Your task to perform on an android device: Open display settings Image 0: 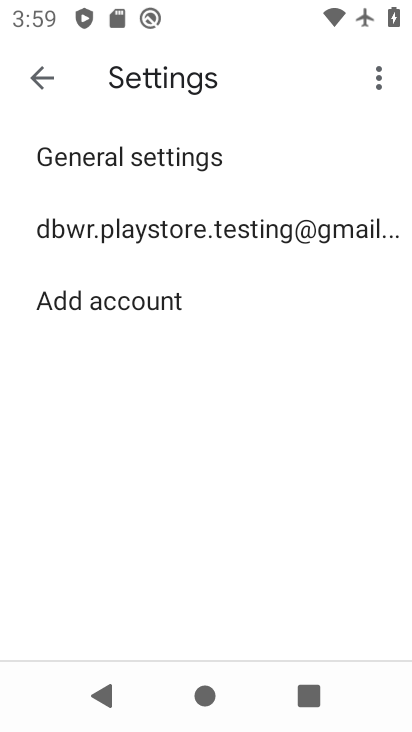
Step 0: press home button
Your task to perform on an android device: Open display settings Image 1: 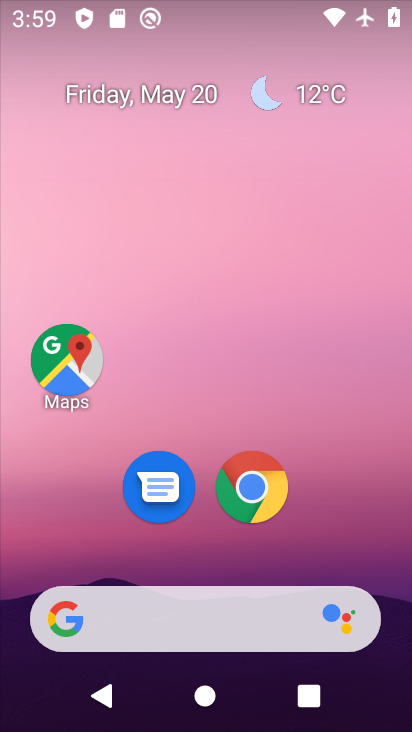
Step 1: drag from (291, 532) to (266, 90)
Your task to perform on an android device: Open display settings Image 2: 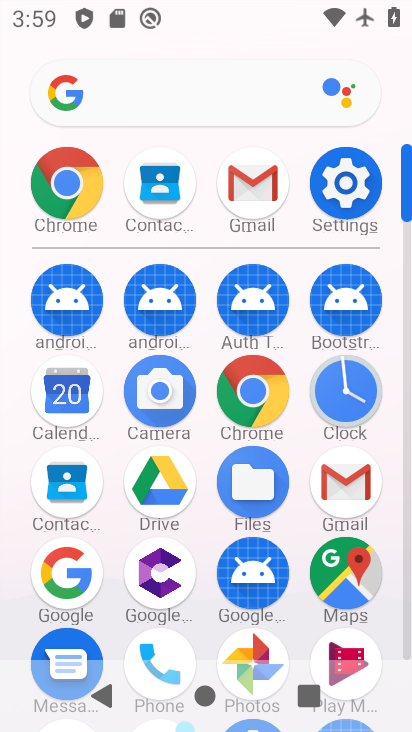
Step 2: click (334, 187)
Your task to perform on an android device: Open display settings Image 3: 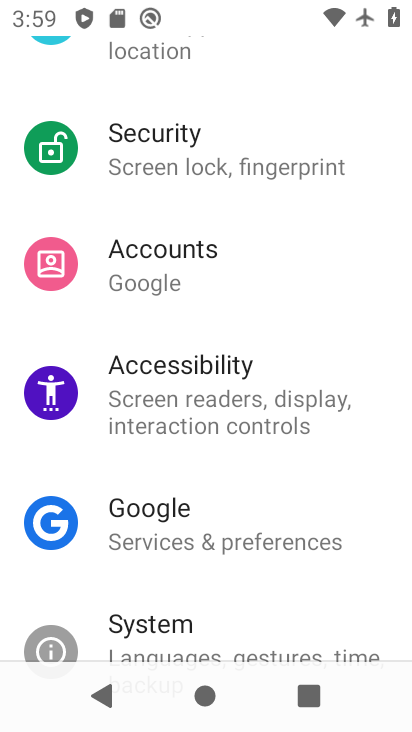
Step 3: drag from (155, 525) to (145, 625)
Your task to perform on an android device: Open display settings Image 4: 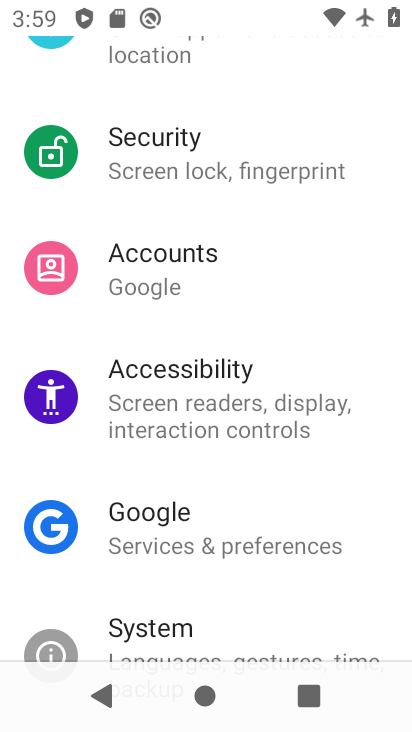
Step 4: drag from (184, 200) to (111, 553)
Your task to perform on an android device: Open display settings Image 5: 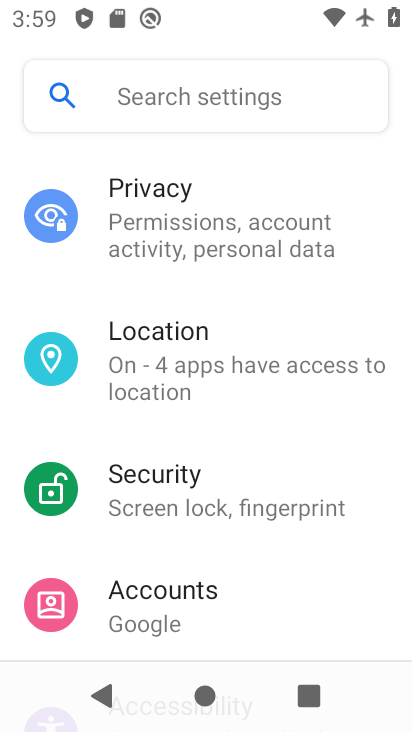
Step 5: drag from (173, 527) to (182, 279)
Your task to perform on an android device: Open display settings Image 6: 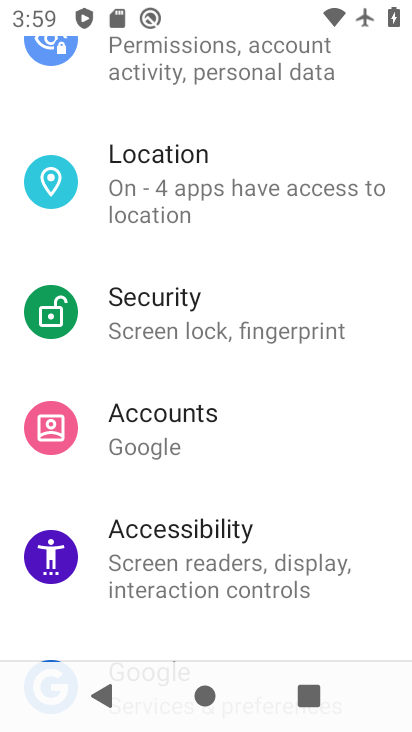
Step 6: drag from (185, 573) to (213, 289)
Your task to perform on an android device: Open display settings Image 7: 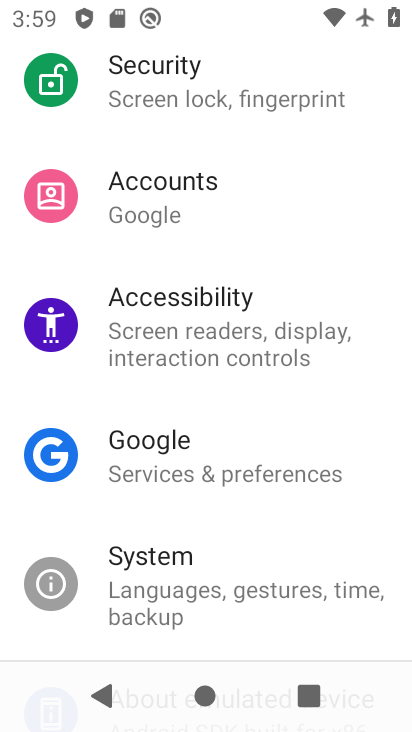
Step 7: drag from (210, 193) to (194, 438)
Your task to perform on an android device: Open display settings Image 8: 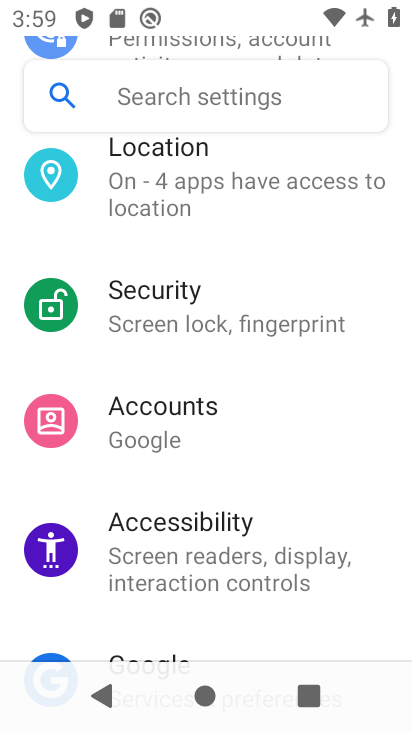
Step 8: drag from (181, 255) to (144, 560)
Your task to perform on an android device: Open display settings Image 9: 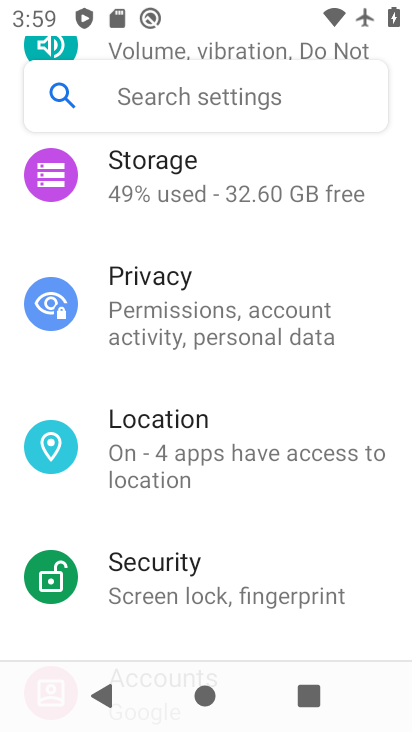
Step 9: drag from (164, 317) to (126, 598)
Your task to perform on an android device: Open display settings Image 10: 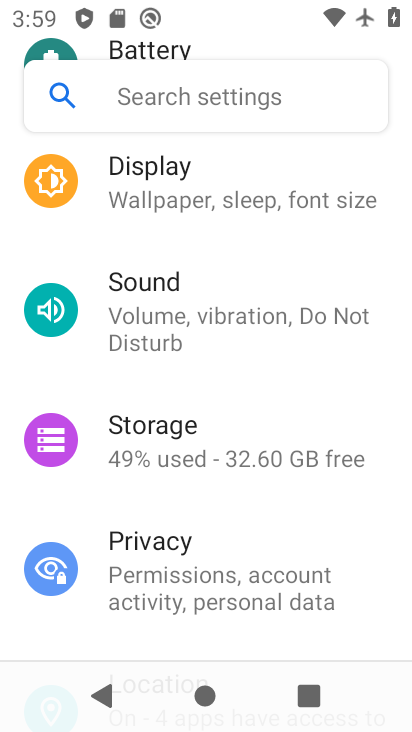
Step 10: click (144, 326)
Your task to perform on an android device: Open display settings Image 11: 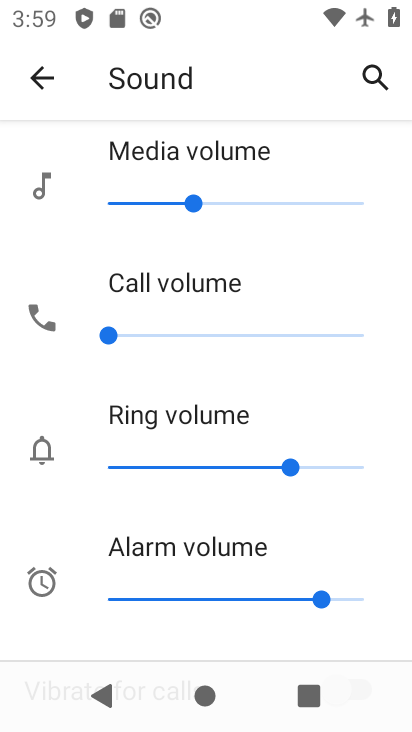
Step 11: click (35, 77)
Your task to perform on an android device: Open display settings Image 12: 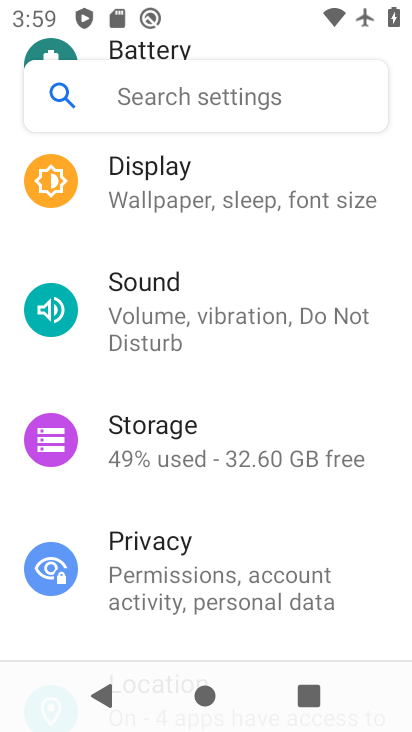
Step 12: drag from (204, 199) to (168, 438)
Your task to perform on an android device: Open display settings Image 13: 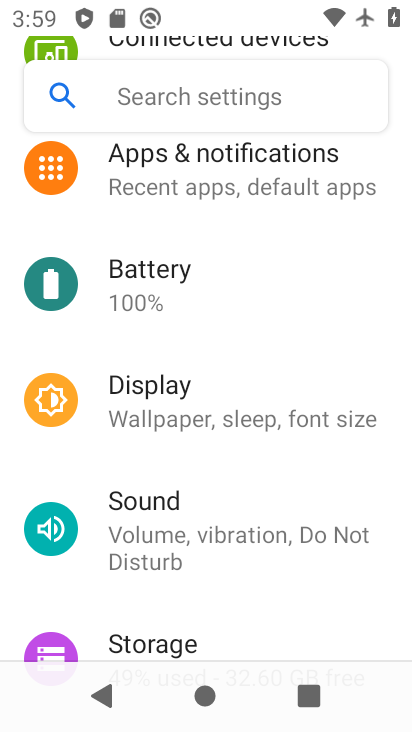
Step 13: click (160, 406)
Your task to perform on an android device: Open display settings Image 14: 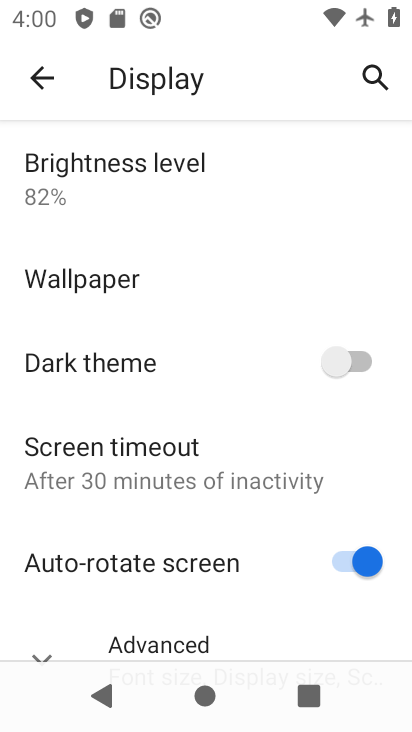
Step 14: task complete